Your task to perform on an android device: Open Reddit.com Image 0: 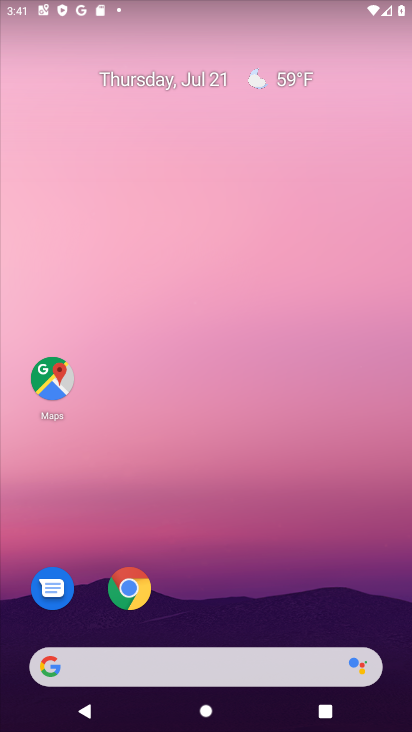
Step 0: click (129, 590)
Your task to perform on an android device: Open Reddit.com Image 1: 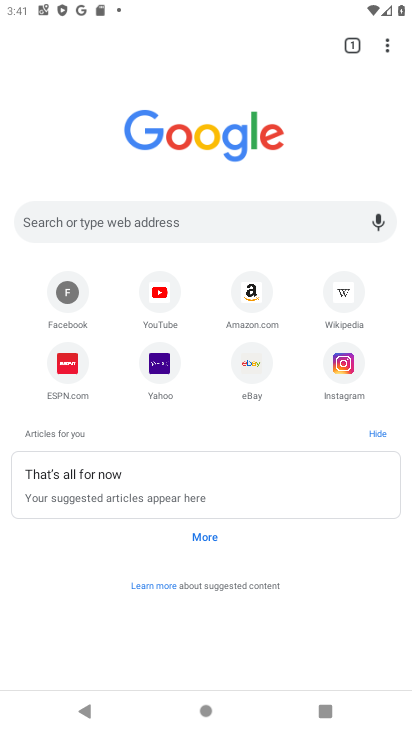
Step 1: click (225, 223)
Your task to perform on an android device: Open Reddit.com Image 2: 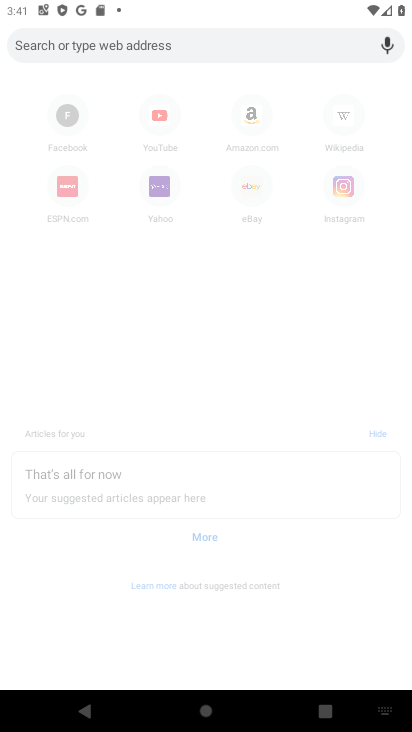
Step 2: type "Reddit.com"
Your task to perform on an android device: Open Reddit.com Image 3: 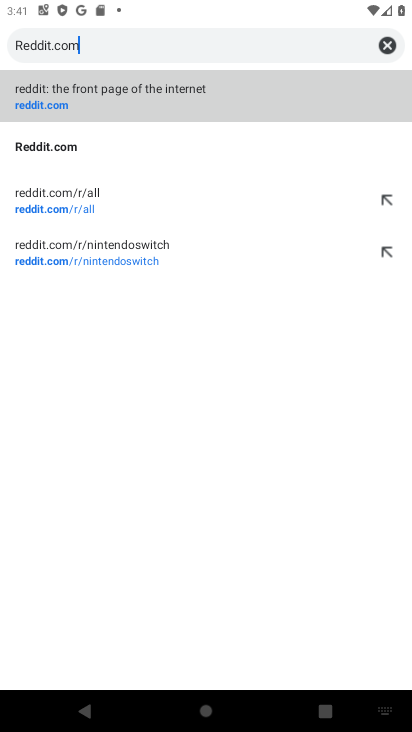
Step 3: click (70, 105)
Your task to perform on an android device: Open Reddit.com Image 4: 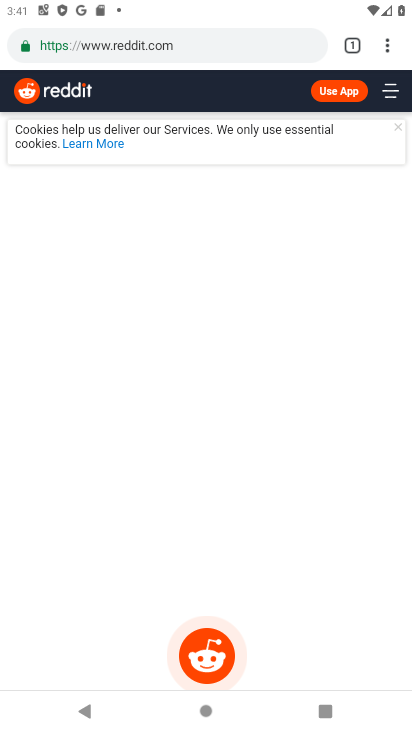
Step 4: task complete